Your task to perform on an android device: turn off picture-in-picture Image 0: 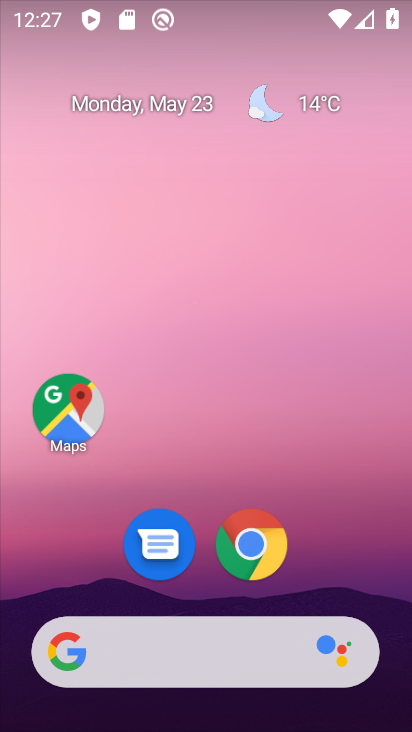
Step 0: click (253, 546)
Your task to perform on an android device: turn off picture-in-picture Image 1: 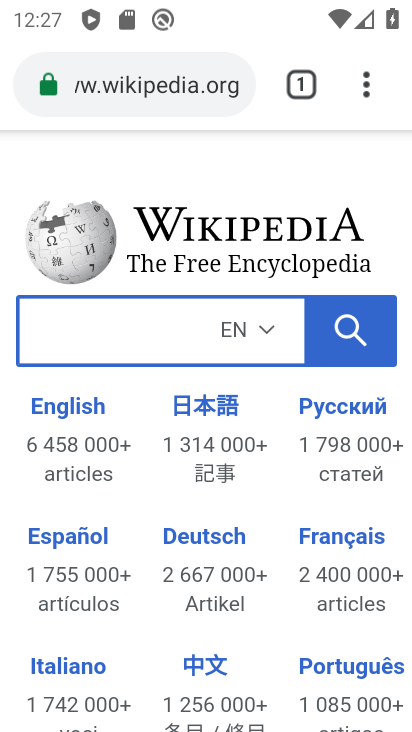
Step 1: click (364, 86)
Your task to perform on an android device: turn off picture-in-picture Image 2: 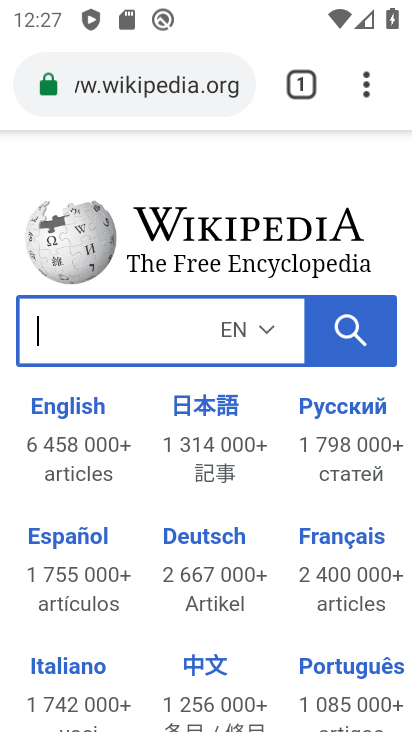
Step 2: drag from (375, 79) to (395, 631)
Your task to perform on an android device: turn off picture-in-picture Image 3: 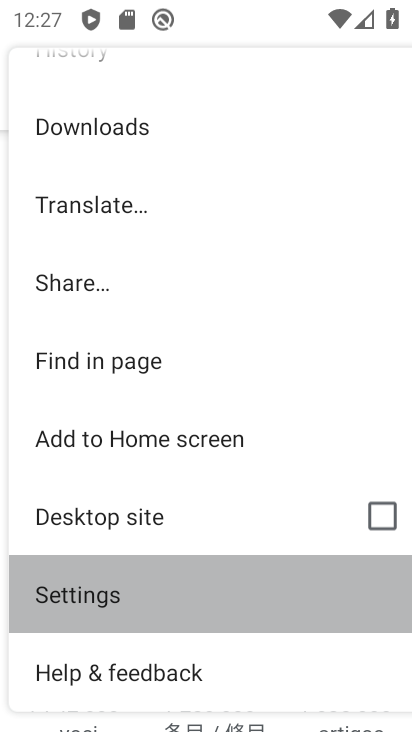
Step 3: press home button
Your task to perform on an android device: turn off picture-in-picture Image 4: 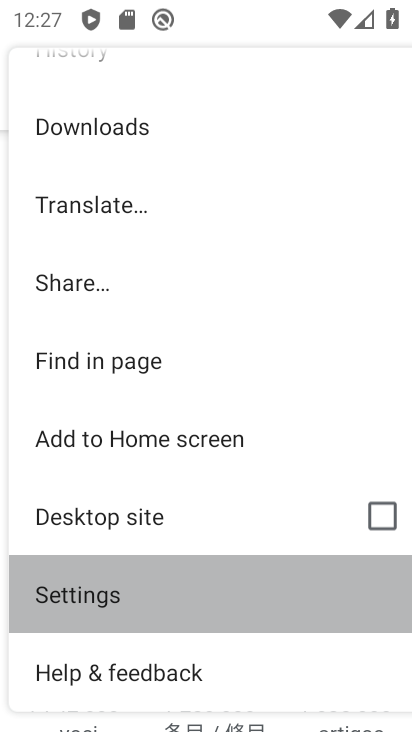
Step 4: drag from (395, 631) to (362, 466)
Your task to perform on an android device: turn off picture-in-picture Image 5: 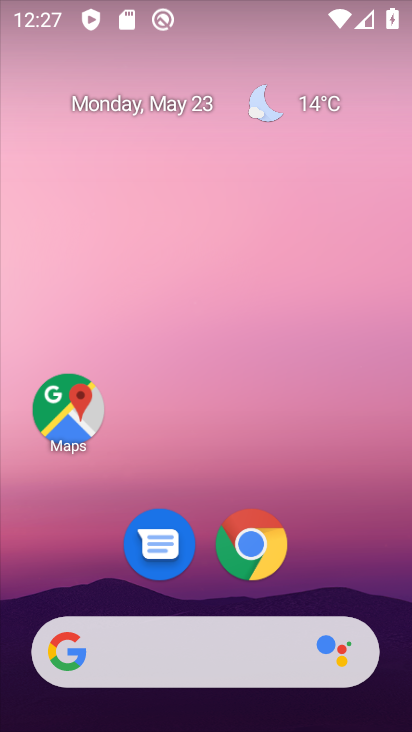
Step 5: click (258, 538)
Your task to perform on an android device: turn off picture-in-picture Image 6: 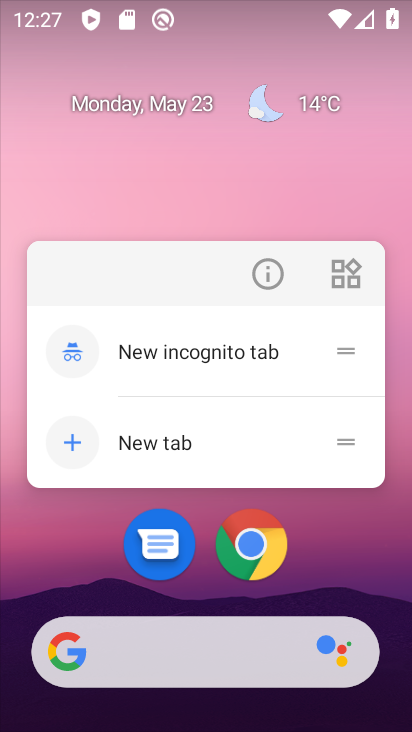
Step 6: click (272, 274)
Your task to perform on an android device: turn off picture-in-picture Image 7: 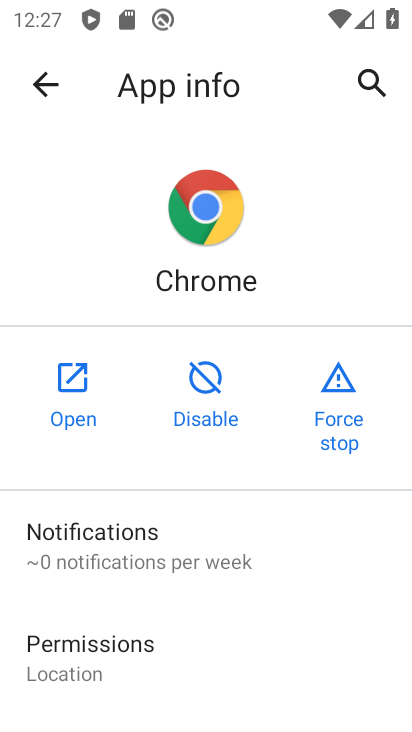
Step 7: drag from (210, 597) to (188, 163)
Your task to perform on an android device: turn off picture-in-picture Image 8: 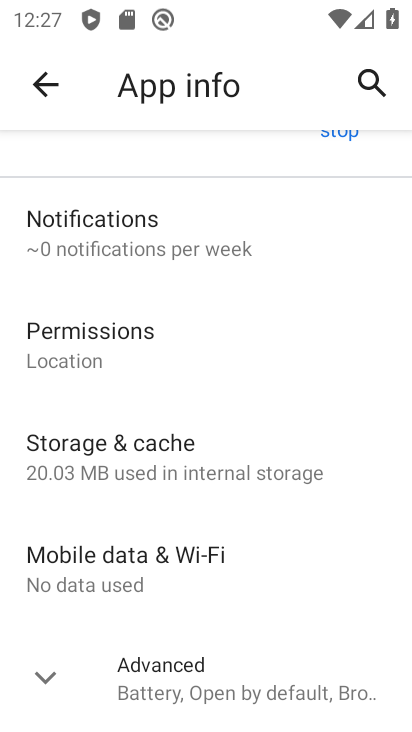
Step 8: click (177, 685)
Your task to perform on an android device: turn off picture-in-picture Image 9: 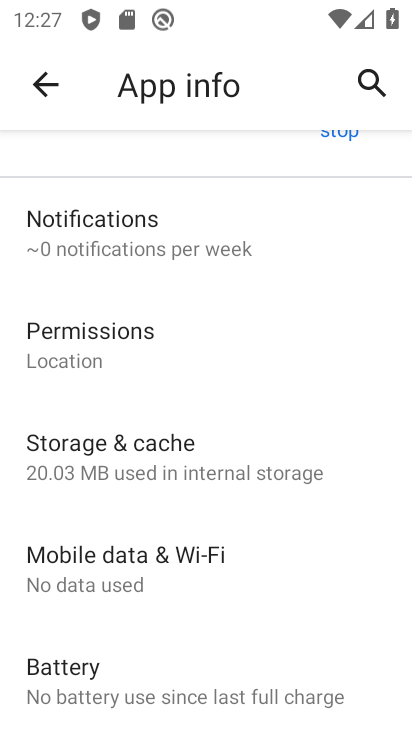
Step 9: drag from (176, 673) to (180, 144)
Your task to perform on an android device: turn off picture-in-picture Image 10: 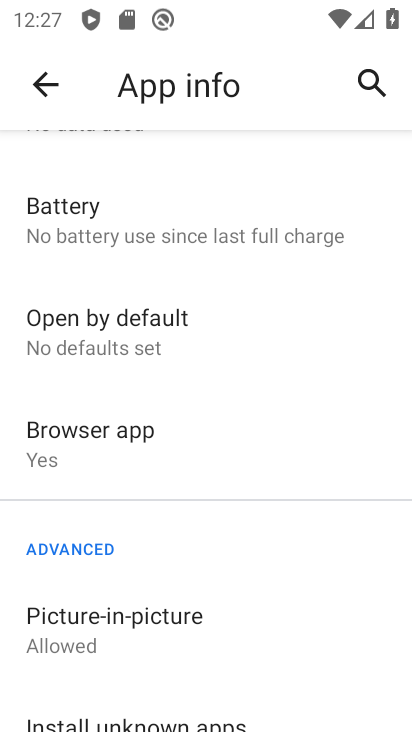
Step 10: click (108, 626)
Your task to perform on an android device: turn off picture-in-picture Image 11: 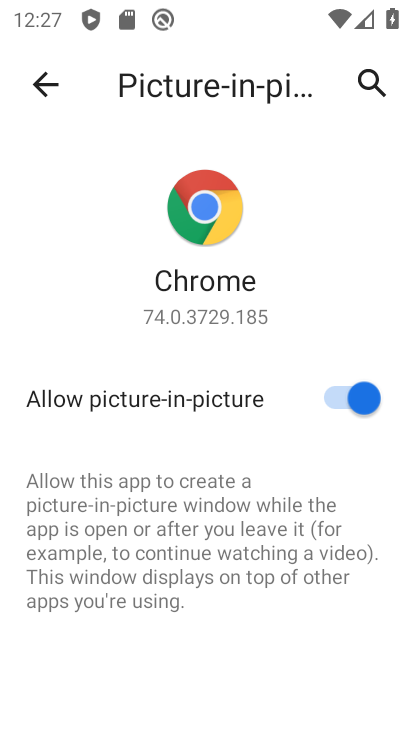
Step 11: click (359, 395)
Your task to perform on an android device: turn off picture-in-picture Image 12: 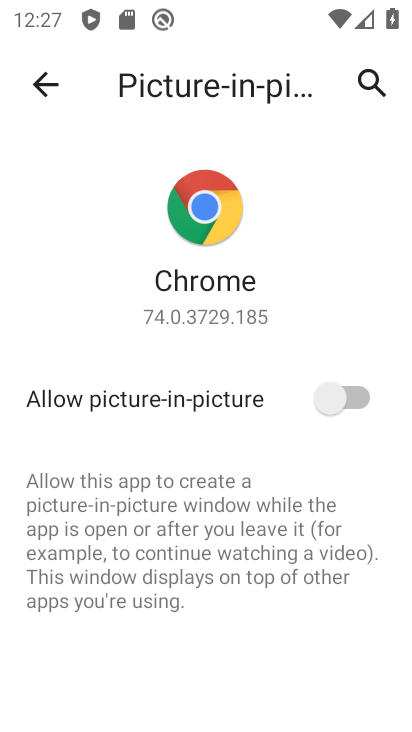
Step 12: task complete